Your task to perform on an android device: Show me productivity apps on the Play Store Image 0: 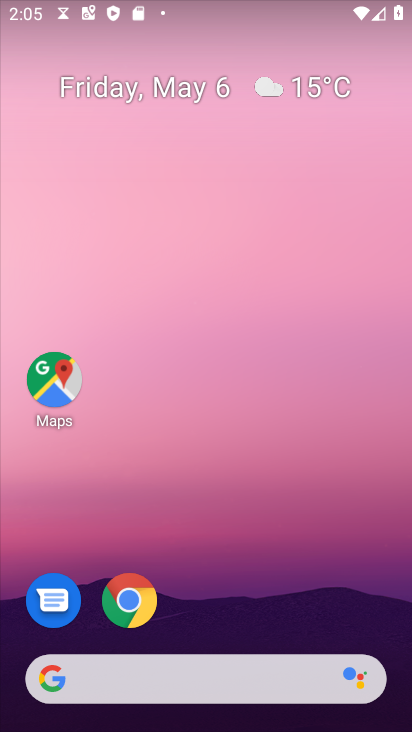
Step 0: drag from (274, 506) to (196, 40)
Your task to perform on an android device: Show me productivity apps on the Play Store Image 1: 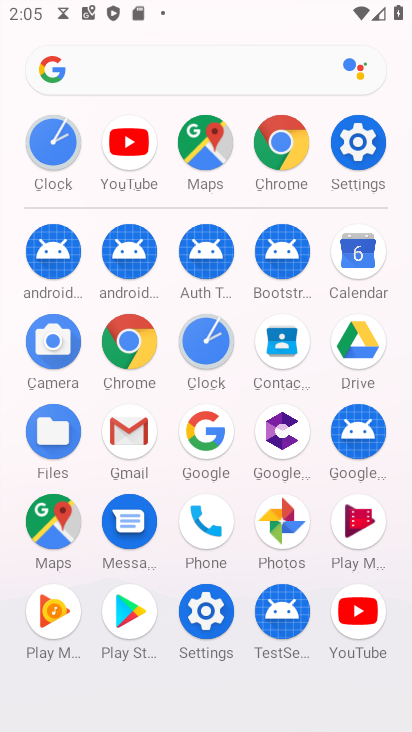
Step 1: drag from (5, 582) to (26, 360)
Your task to perform on an android device: Show me productivity apps on the Play Store Image 2: 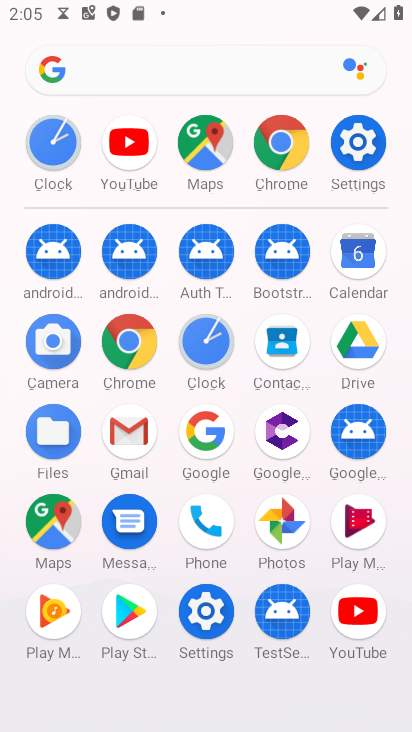
Step 2: click (126, 614)
Your task to perform on an android device: Show me productivity apps on the Play Store Image 3: 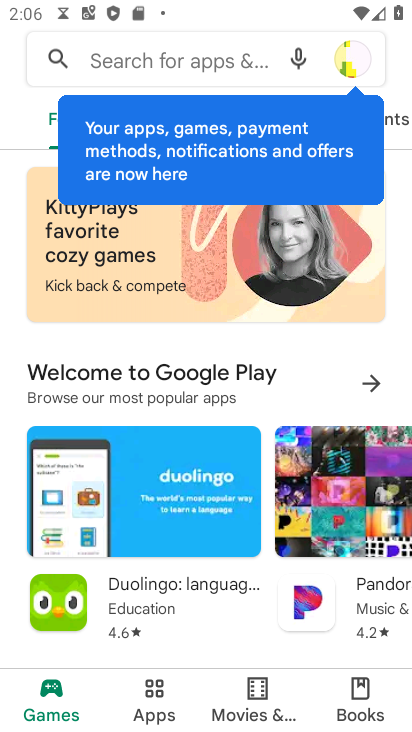
Step 3: click (141, 692)
Your task to perform on an android device: Show me productivity apps on the Play Store Image 4: 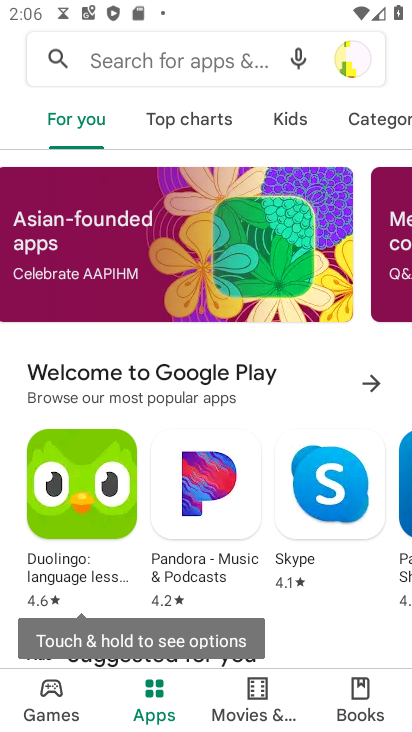
Step 4: drag from (317, 119) to (109, 112)
Your task to perform on an android device: Show me productivity apps on the Play Store Image 5: 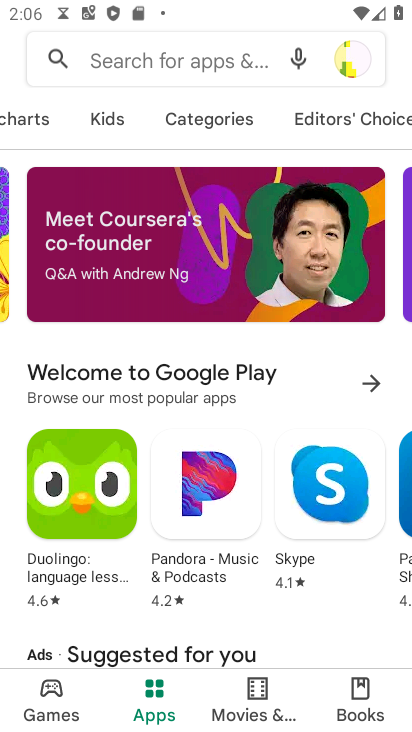
Step 5: drag from (338, 130) to (48, 125)
Your task to perform on an android device: Show me productivity apps on the Play Store Image 6: 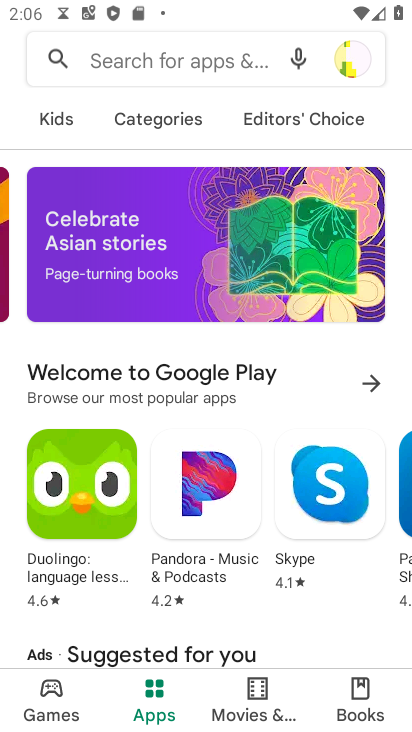
Step 6: click (148, 119)
Your task to perform on an android device: Show me productivity apps on the Play Store Image 7: 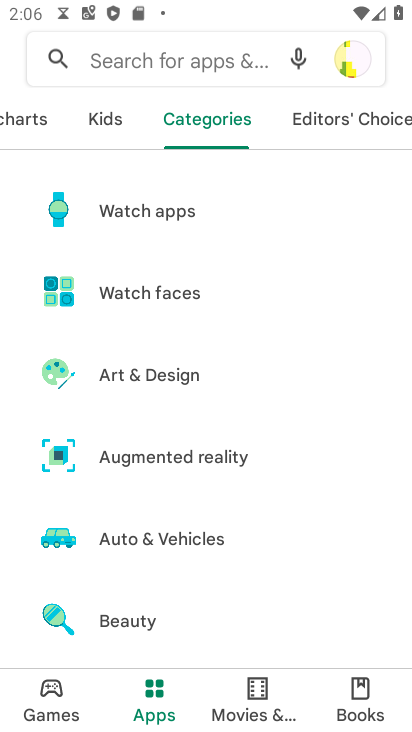
Step 7: drag from (243, 534) to (240, 221)
Your task to perform on an android device: Show me productivity apps on the Play Store Image 8: 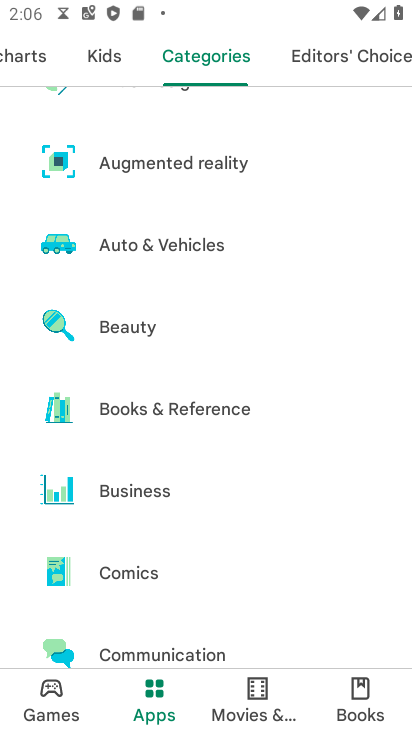
Step 8: drag from (221, 535) to (244, 144)
Your task to perform on an android device: Show me productivity apps on the Play Store Image 9: 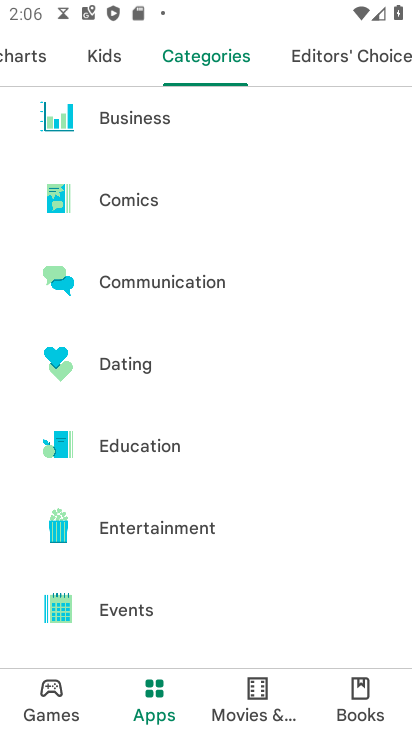
Step 9: drag from (219, 587) to (260, 162)
Your task to perform on an android device: Show me productivity apps on the Play Store Image 10: 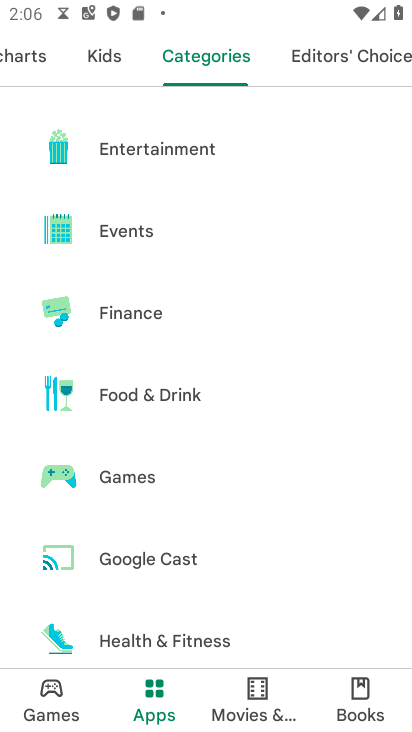
Step 10: drag from (246, 543) to (250, 167)
Your task to perform on an android device: Show me productivity apps on the Play Store Image 11: 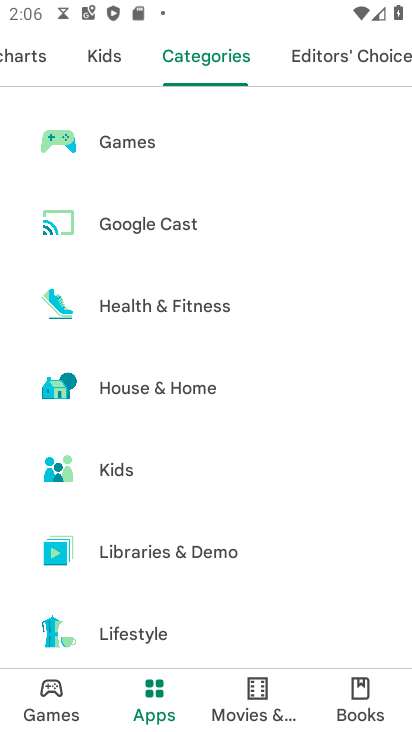
Step 11: drag from (228, 561) to (252, 234)
Your task to perform on an android device: Show me productivity apps on the Play Store Image 12: 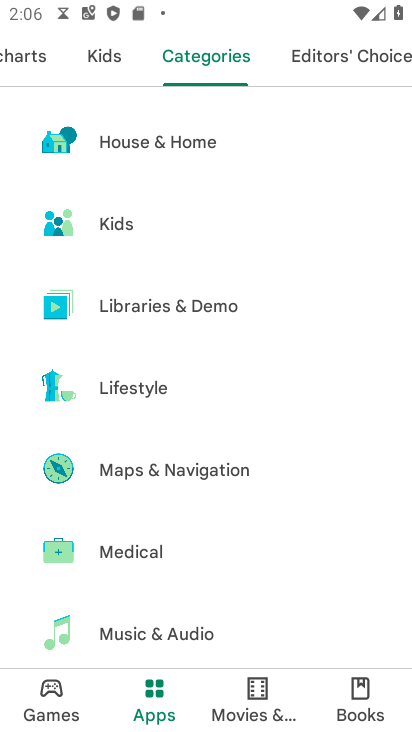
Step 12: drag from (234, 561) to (278, 191)
Your task to perform on an android device: Show me productivity apps on the Play Store Image 13: 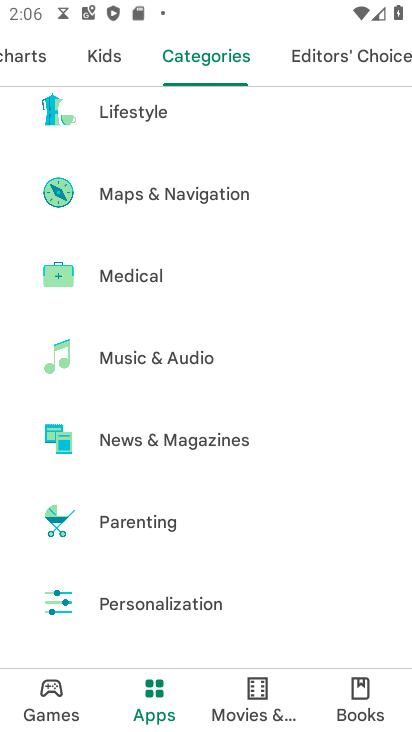
Step 13: drag from (236, 610) to (282, 255)
Your task to perform on an android device: Show me productivity apps on the Play Store Image 14: 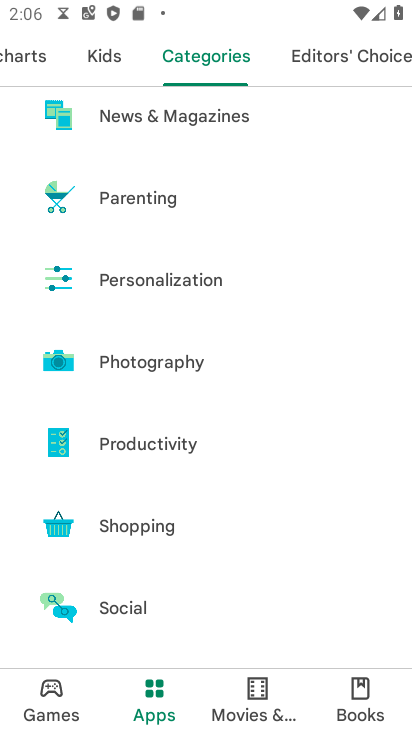
Step 14: click (202, 447)
Your task to perform on an android device: Show me productivity apps on the Play Store Image 15: 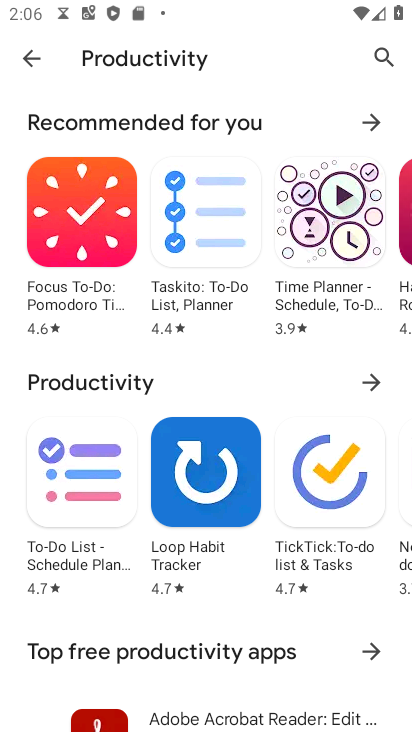
Step 15: task complete